Your task to perform on an android device: Open calendar and show me the first week of next month Image 0: 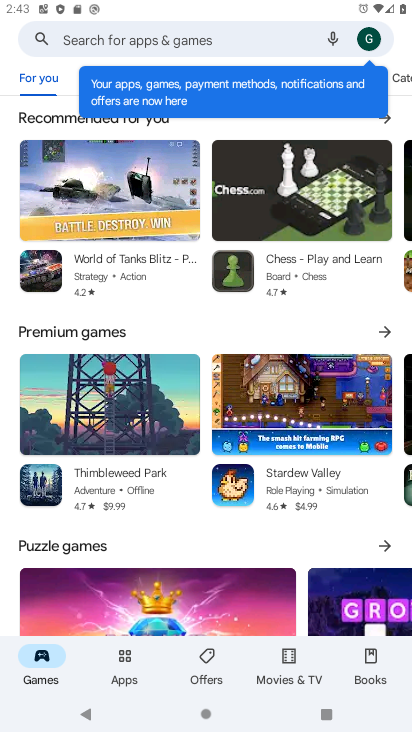
Step 0: press home button
Your task to perform on an android device: Open calendar and show me the first week of next month Image 1: 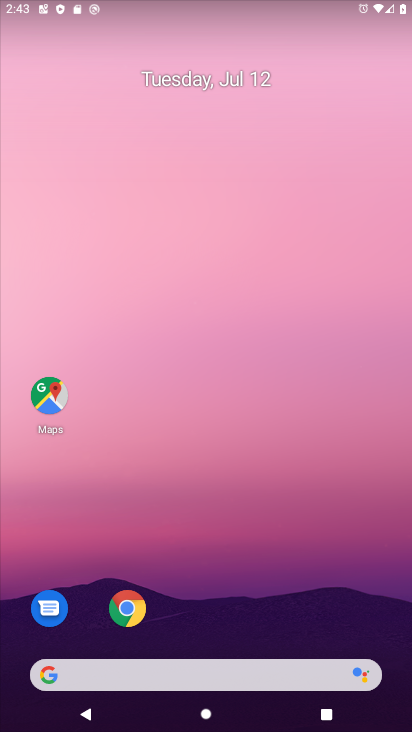
Step 1: drag from (254, 577) to (117, 135)
Your task to perform on an android device: Open calendar and show me the first week of next month Image 2: 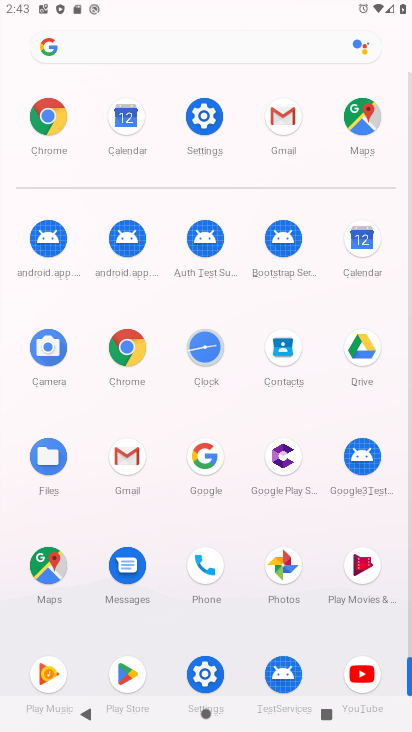
Step 2: click (134, 121)
Your task to perform on an android device: Open calendar and show me the first week of next month Image 3: 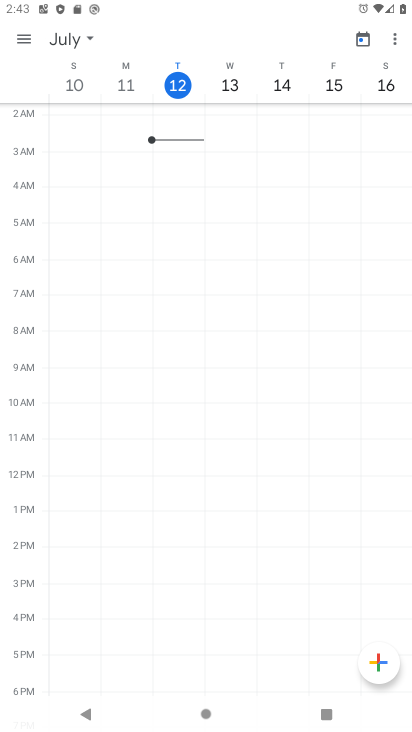
Step 3: click (68, 35)
Your task to perform on an android device: Open calendar and show me the first week of next month Image 4: 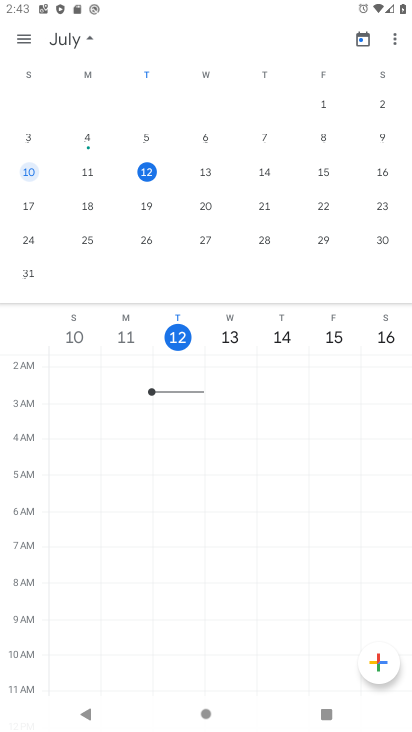
Step 4: drag from (386, 239) to (0, 191)
Your task to perform on an android device: Open calendar and show me the first week of next month Image 5: 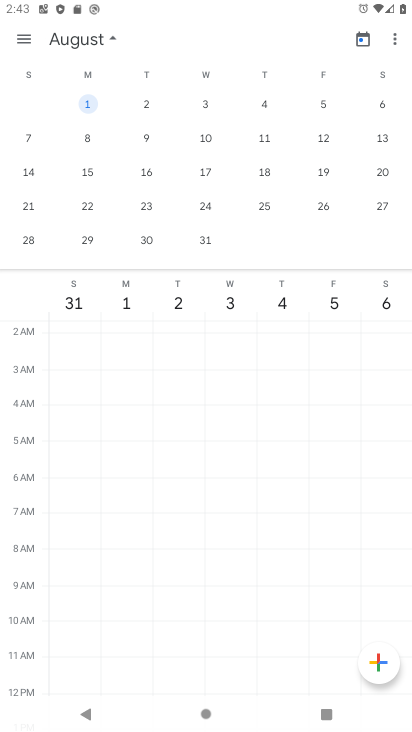
Step 5: click (143, 97)
Your task to perform on an android device: Open calendar and show me the first week of next month Image 6: 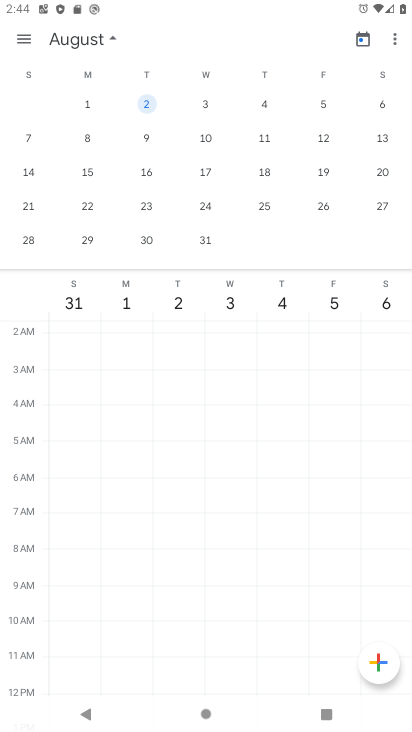
Step 6: task complete